Your task to perform on an android device: Go to notification settings Image 0: 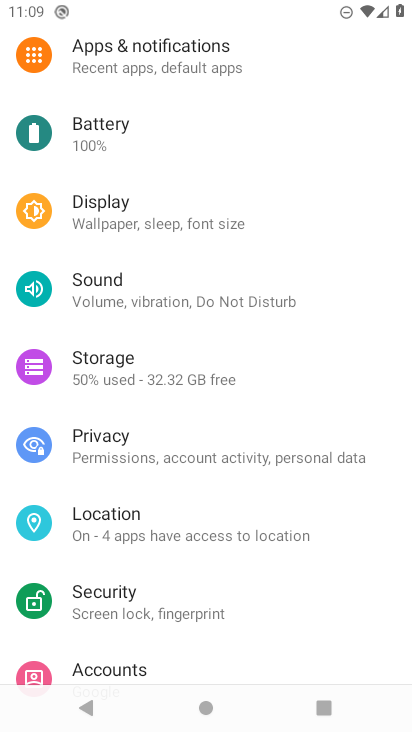
Step 0: click (165, 51)
Your task to perform on an android device: Go to notification settings Image 1: 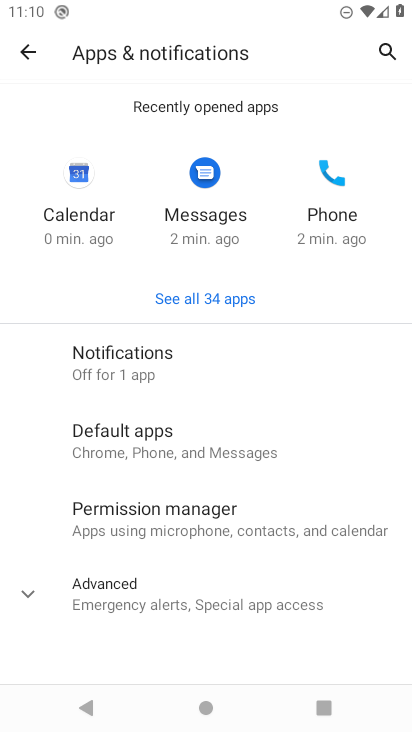
Step 1: click (173, 359)
Your task to perform on an android device: Go to notification settings Image 2: 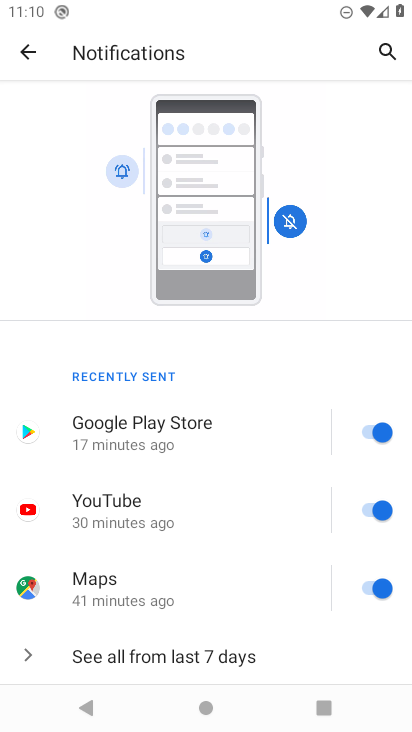
Step 2: drag from (252, 613) to (234, 171)
Your task to perform on an android device: Go to notification settings Image 3: 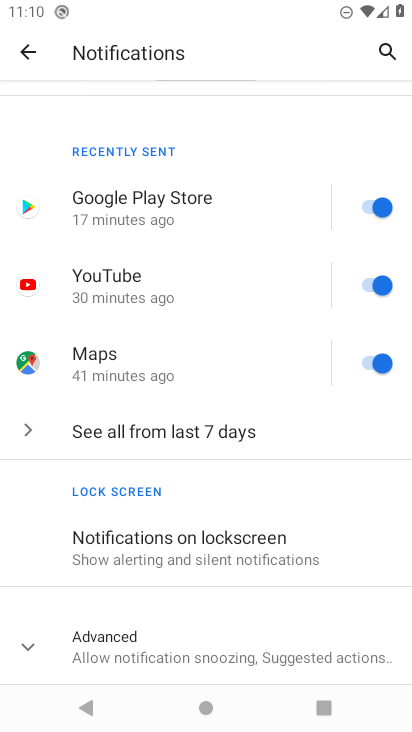
Step 3: click (27, 634)
Your task to perform on an android device: Go to notification settings Image 4: 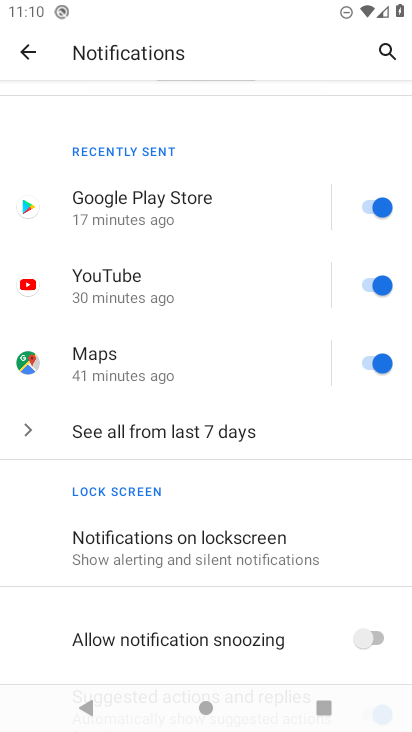
Step 4: drag from (174, 604) to (193, 177)
Your task to perform on an android device: Go to notification settings Image 5: 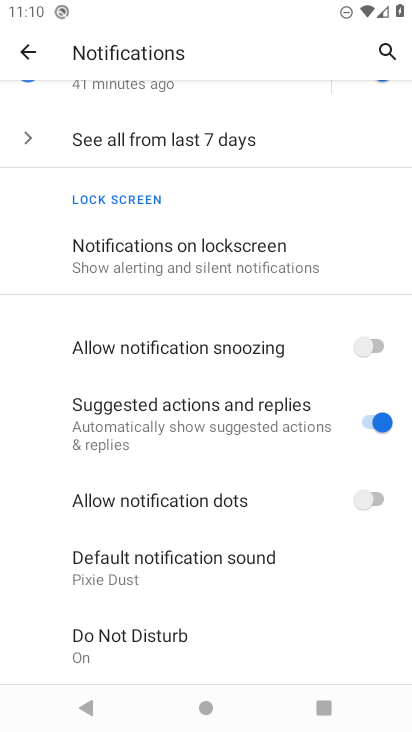
Step 5: drag from (122, 171) to (155, 628)
Your task to perform on an android device: Go to notification settings Image 6: 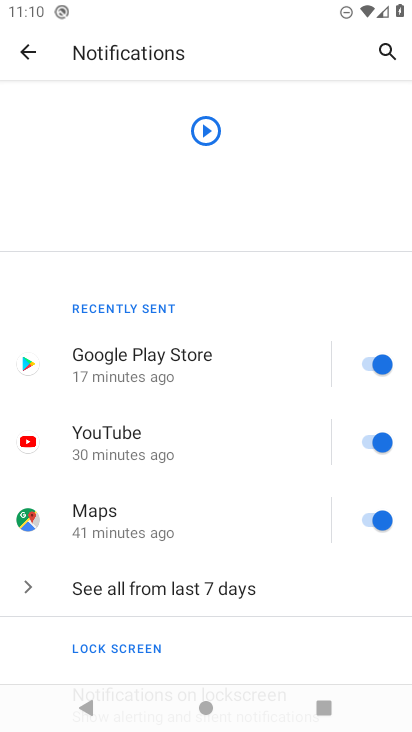
Step 6: click (370, 355)
Your task to perform on an android device: Go to notification settings Image 7: 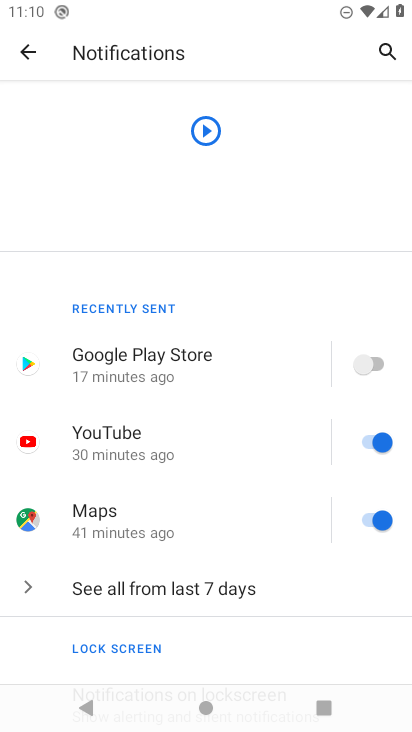
Step 7: click (375, 434)
Your task to perform on an android device: Go to notification settings Image 8: 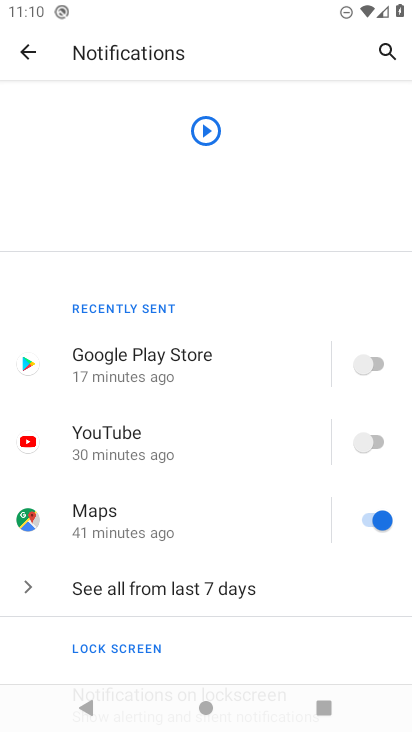
Step 8: click (370, 519)
Your task to perform on an android device: Go to notification settings Image 9: 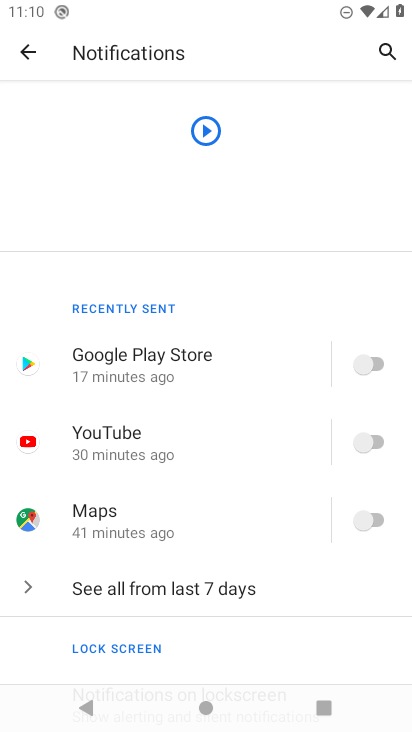
Step 9: task complete